Your task to perform on an android device: check storage Image 0: 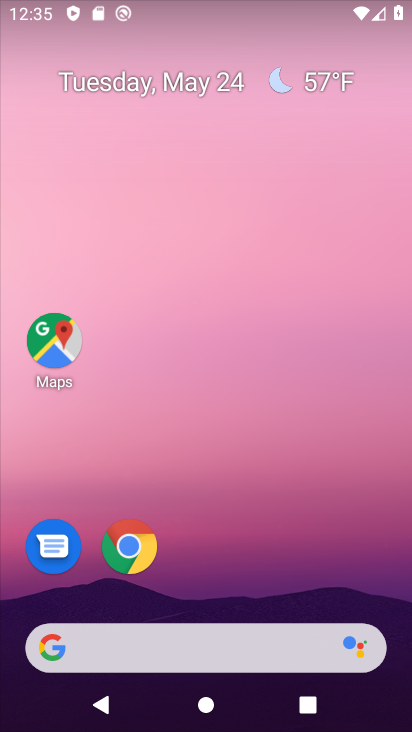
Step 0: drag from (265, 554) to (265, 71)
Your task to perform on an android device: check storage Image 1: 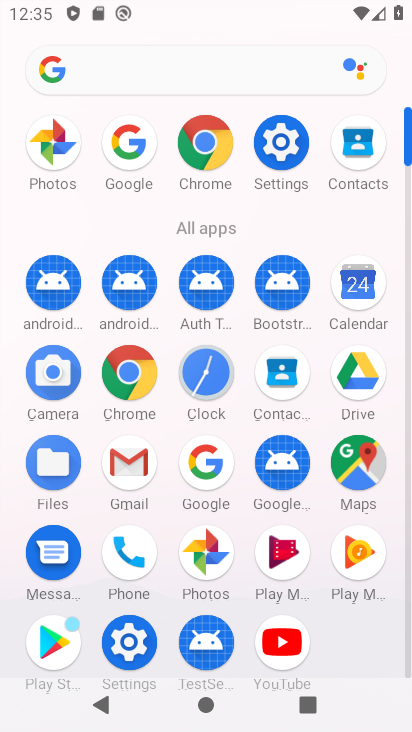
Step 1: click (290, 137)
Your task to perform on an android device: check storage Image 2: 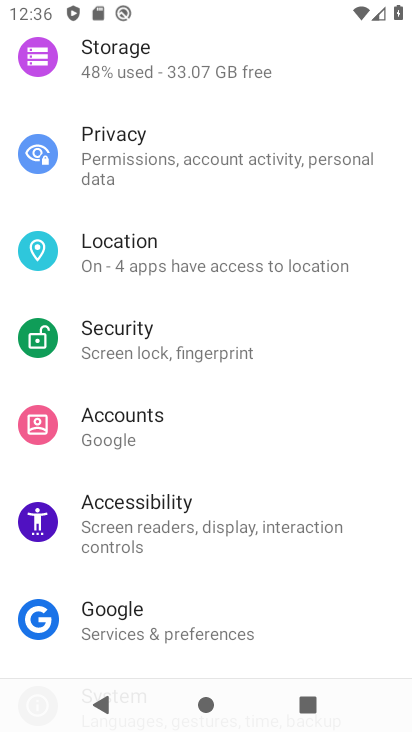
Step 2: drag from (215, 154) to (241, 485)
Your task to perform on an android device: check storage Image 3: 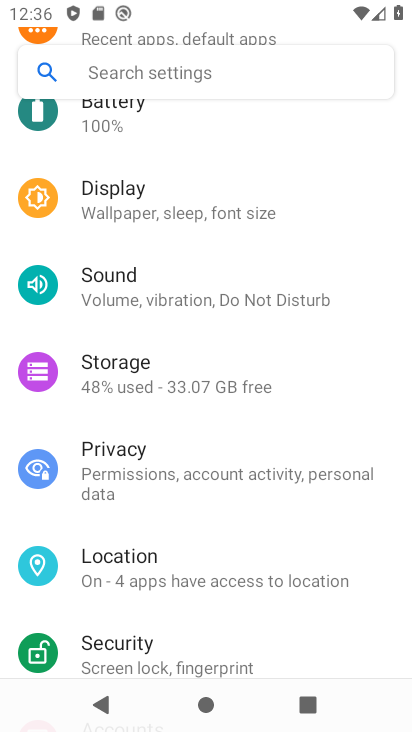
Step 3: click (113, 367)
Your task to perform on an android device: check storage Image 4: 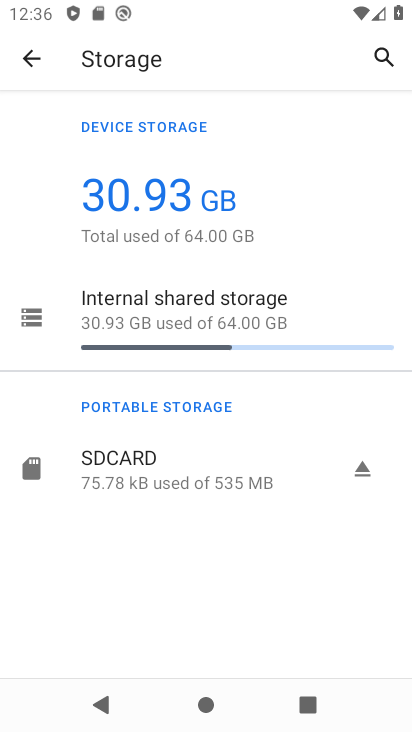
Step 4: task complete